Your task to perform on an android device: empty trash in the gmail app Image 0: 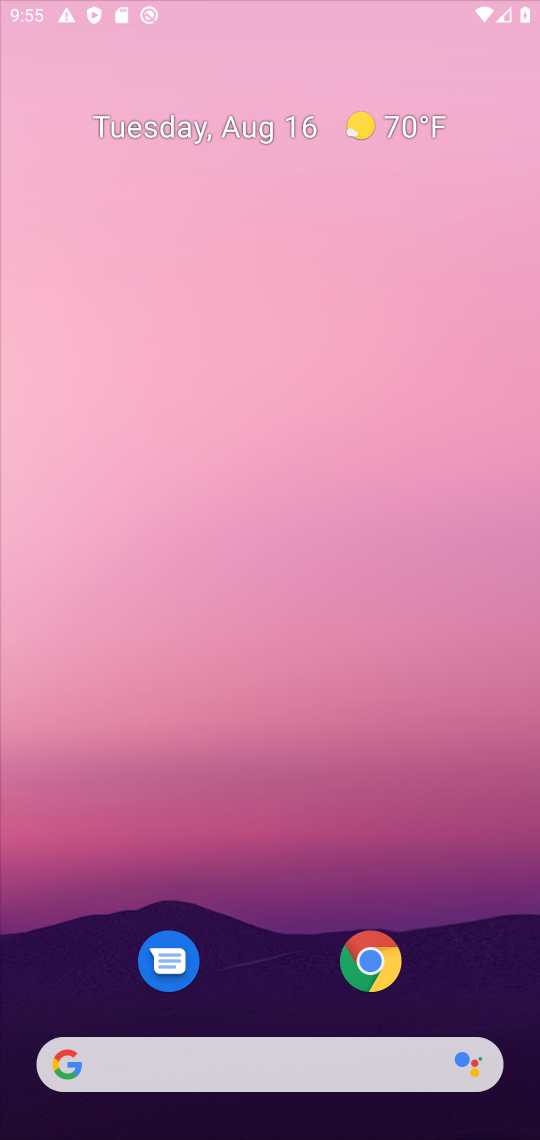
Step 0: drag from (336, 866) to (307, 196)
Your task to perform on an android device: empty trash in the gmail app Image 1: 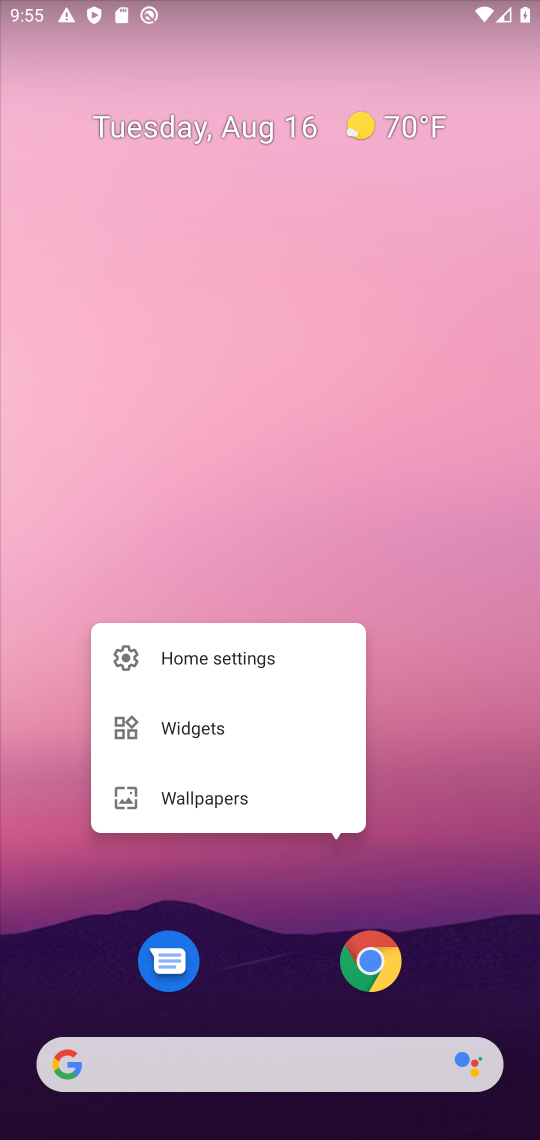
Step 1: click (319, 502)
Your task to perform on an android device: empty trash in the gmail app Image 2: 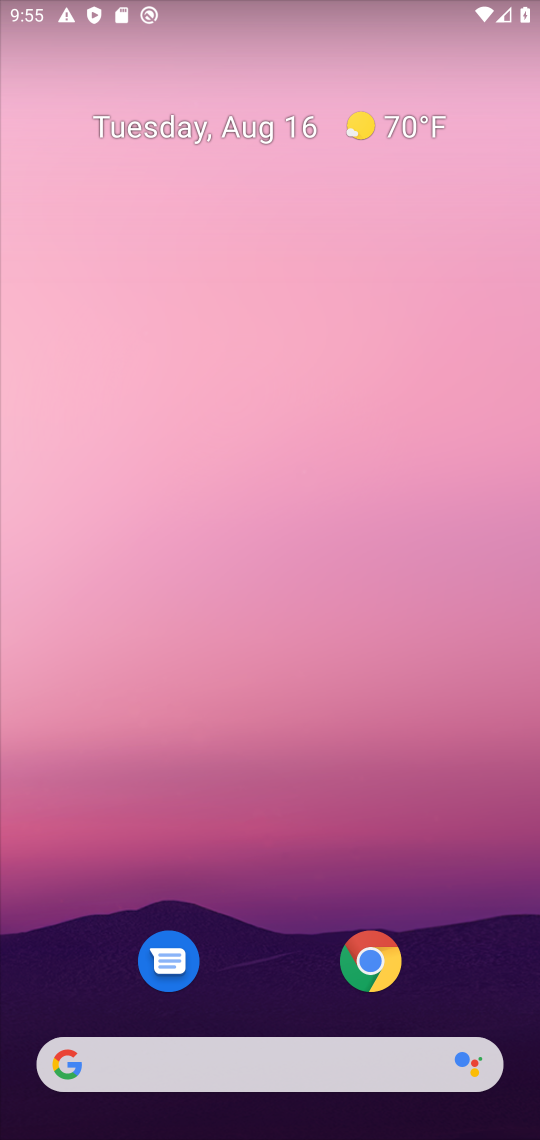
Step 2: drag from (314, 827) to (293, 320)
Your task to perform on an android device: empty trash in the gmail app Image 3: 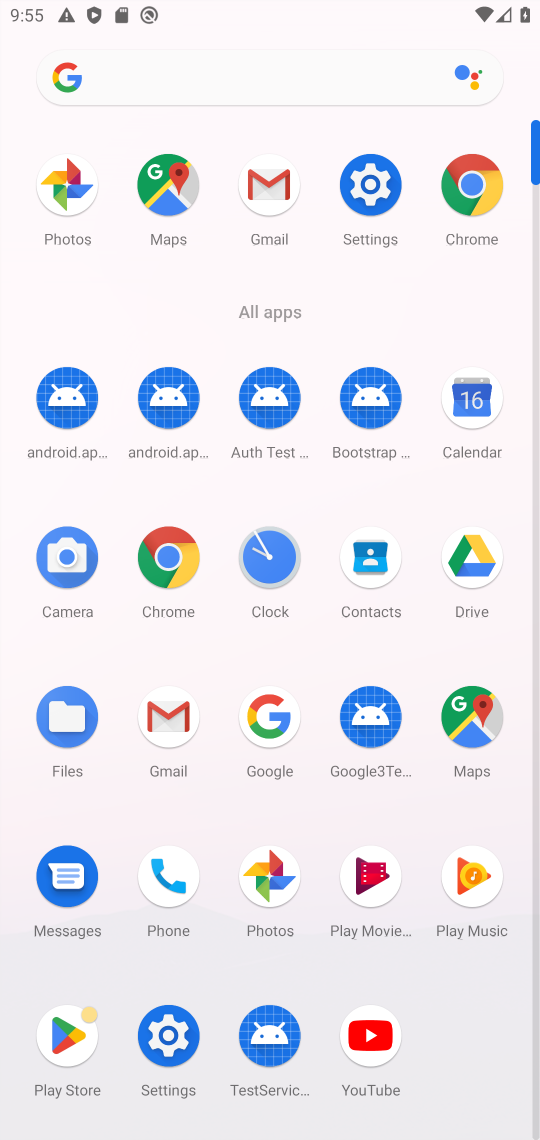
Step 3: click (377, 181)
Your task to perform on an android device: empty trash in the gmail app Image 4: 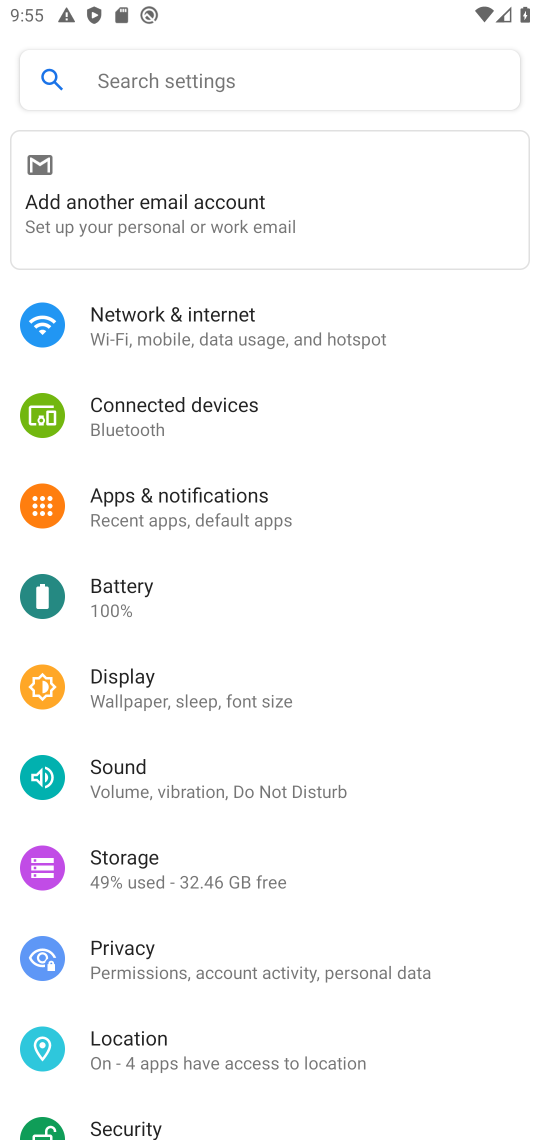
Step 4: task complete